Your task to perform on an android device: View the shopping cart on walmart.com. Image 0: 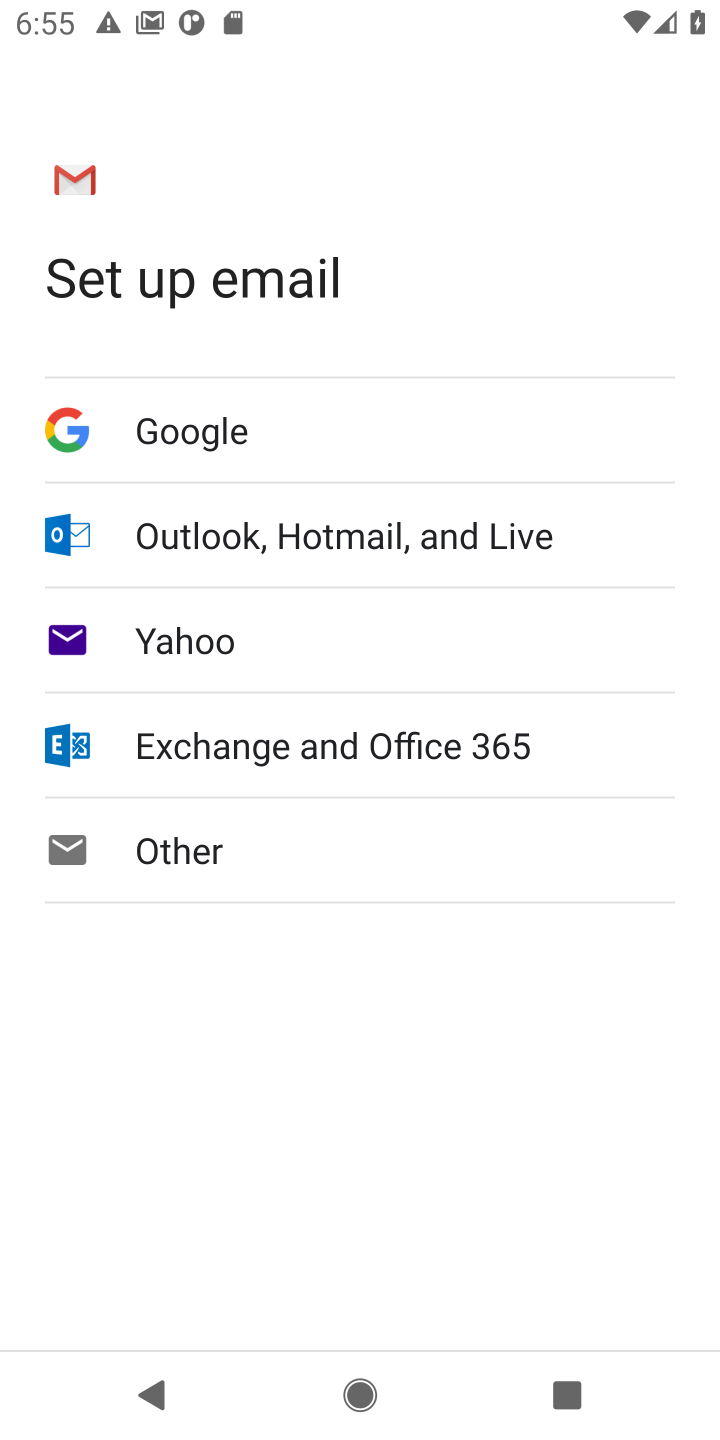
Step 0: press home button
Your task to perform on an android device: View the shopping cart on walmart.com. Image 1: 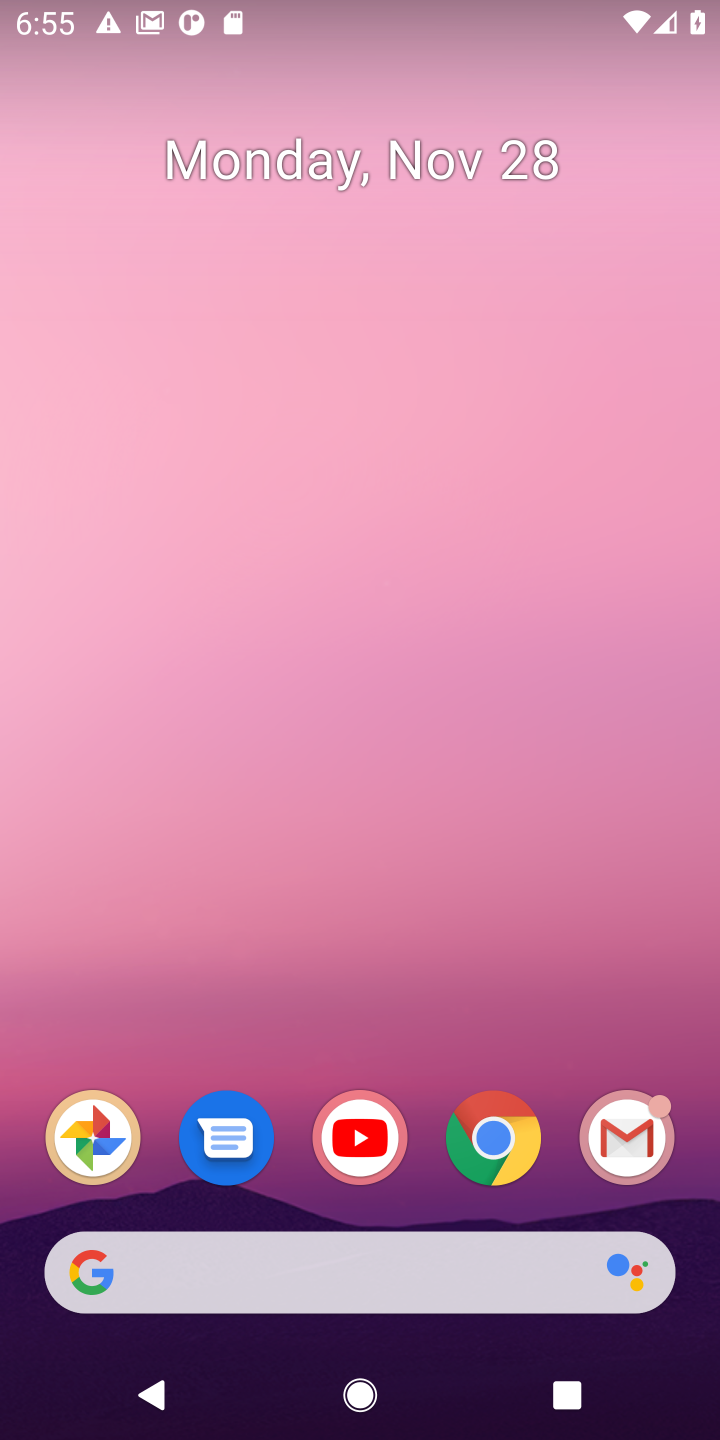
Step 1: click (479, 1155)
Your task to perform on an android device: View the shopping cart on walmart.com. Image 2: 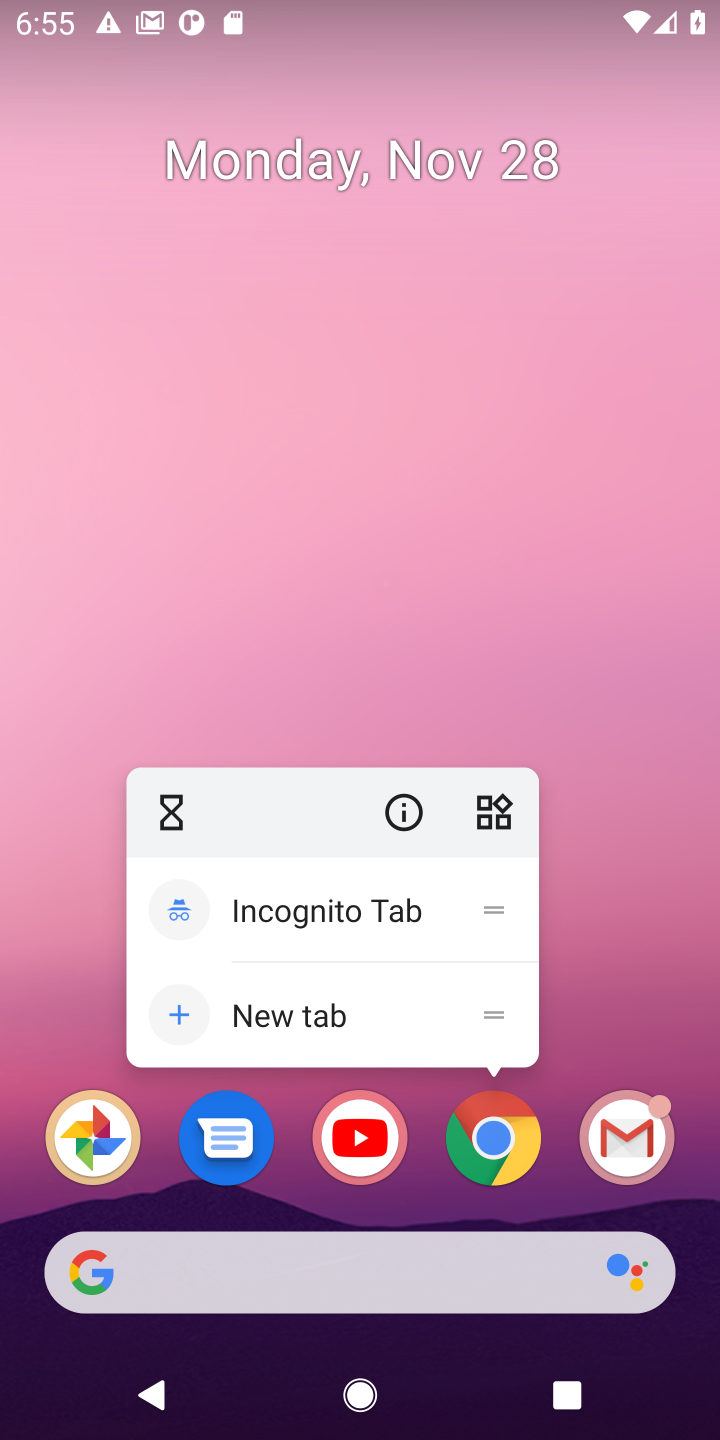
Step 2: click (490, 1141)
Your task to perform on an android device: View the shopping cart on walmart.com. Image 3: 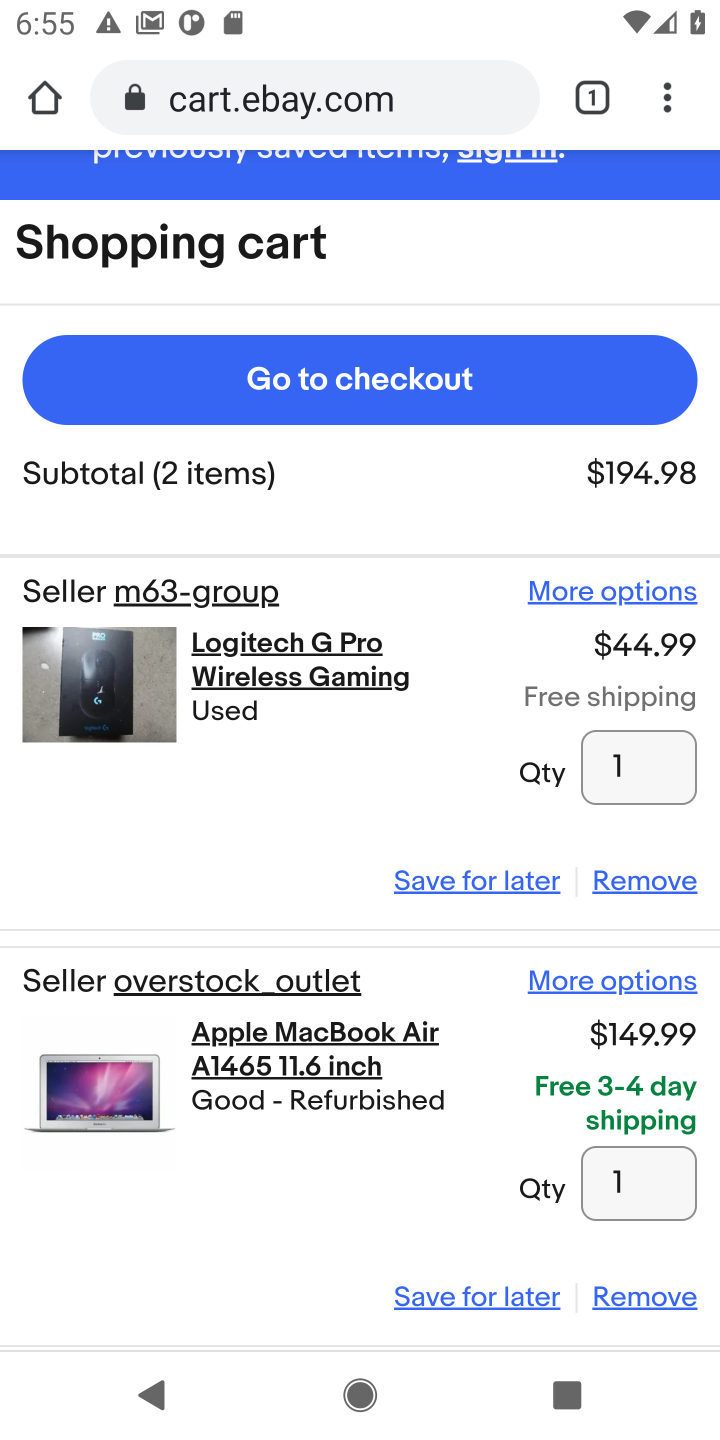
Step 3: click (287, 102)
Your task to perform on an android device: View the shopping cart on walmart.com. Image 4: 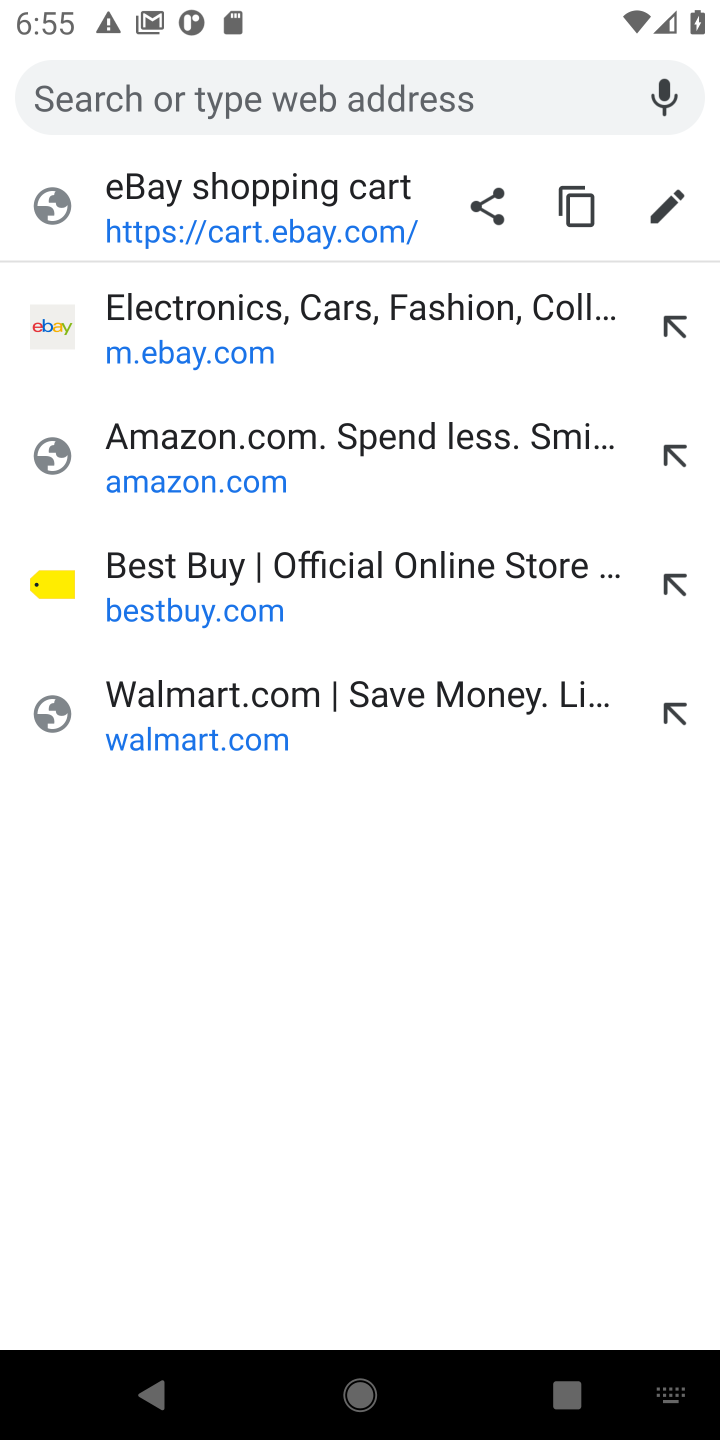
Step 4: click (169, 710)
Your task to perform on an android device: View the shopping cart on walmart.com. Image 5: 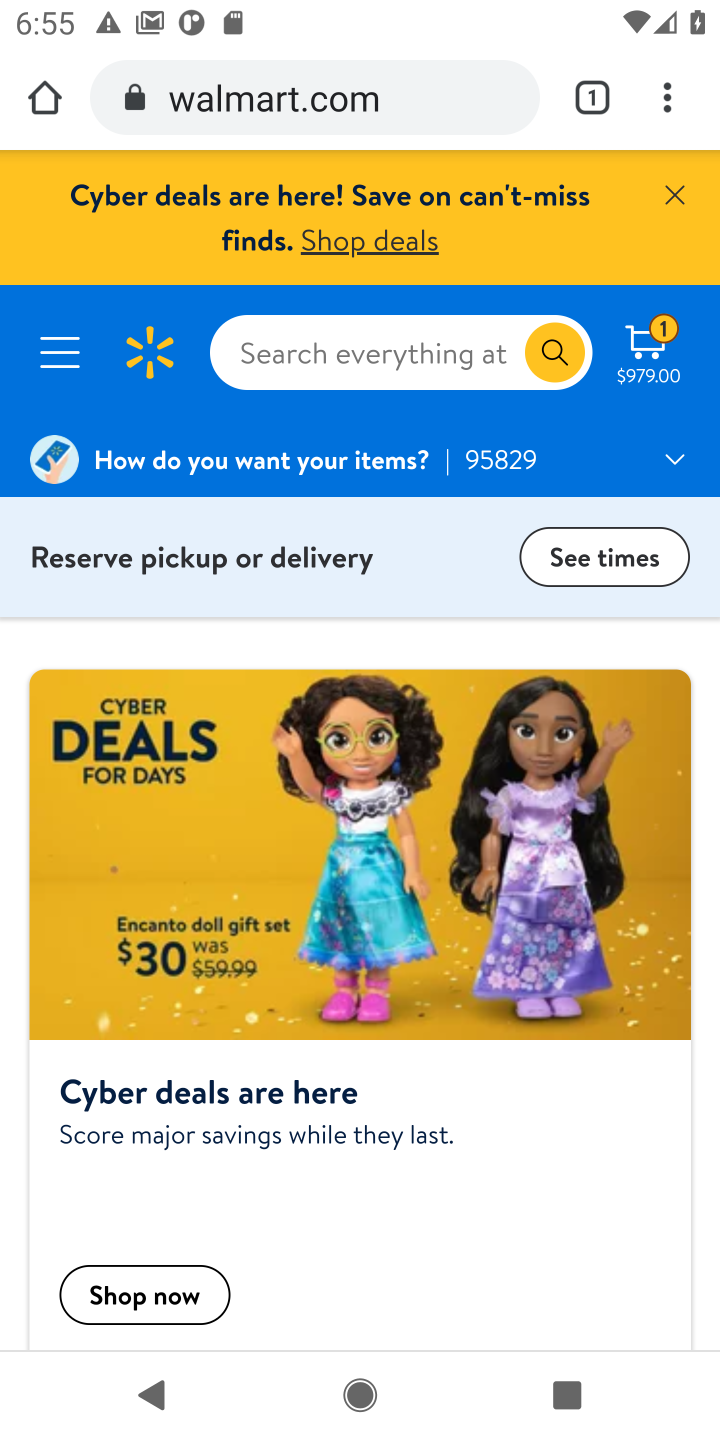
Step 5: click (651, 354)
Your task to perform on an android device: View the shopping cart on walmart.com. Image 6: 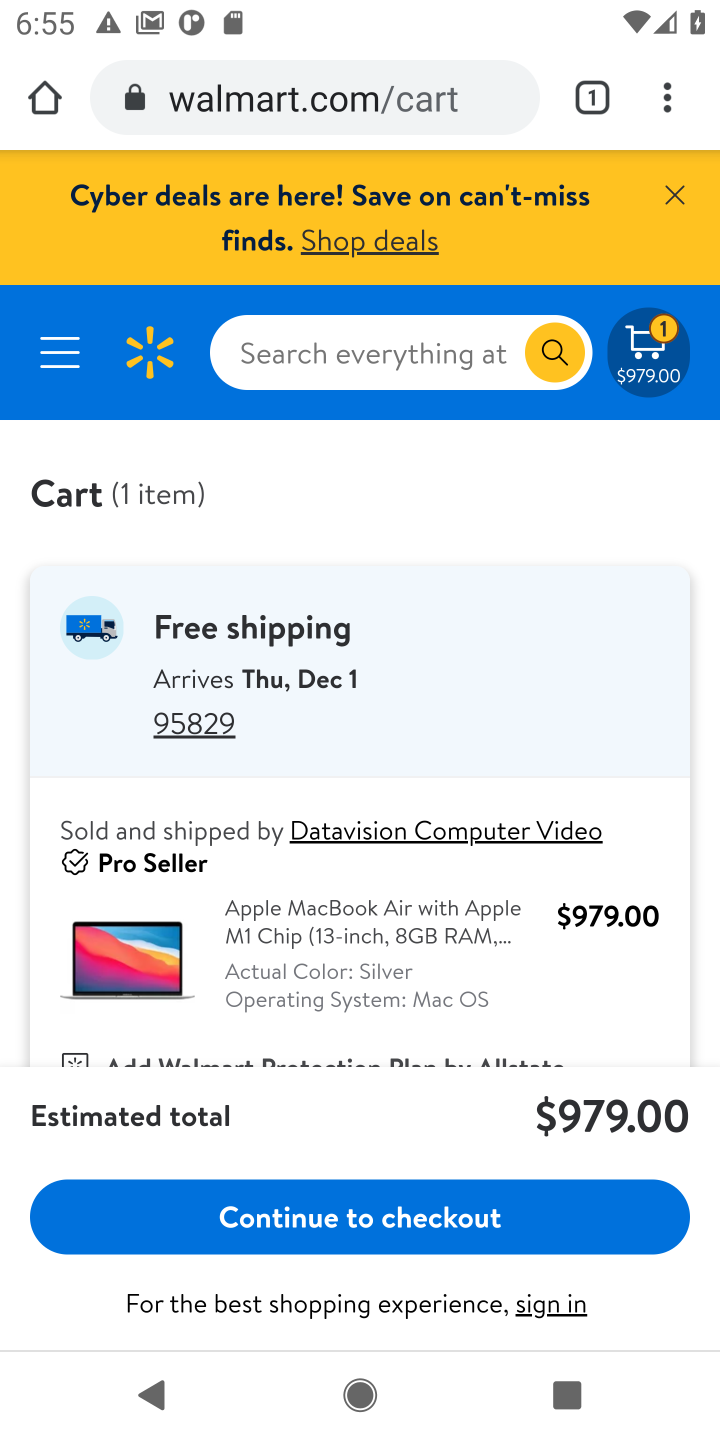
Step 6: task complete